Your task to perform on an android device: move an email to a new category in the gmail app Image 0: 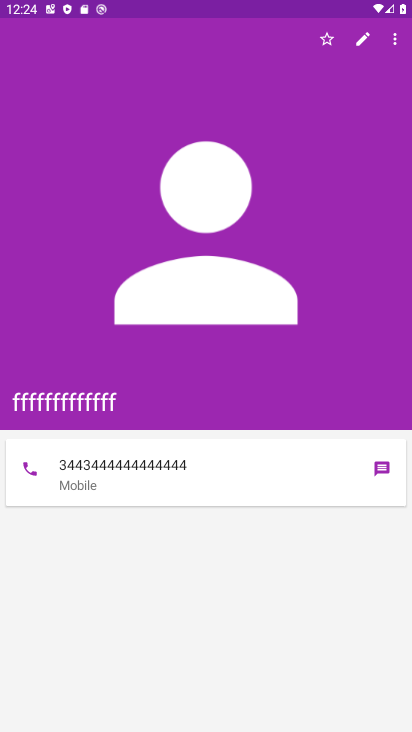
Step 0: press home button
Your task to perform on an android device: move an email to a new category in the gmail app Image 1: 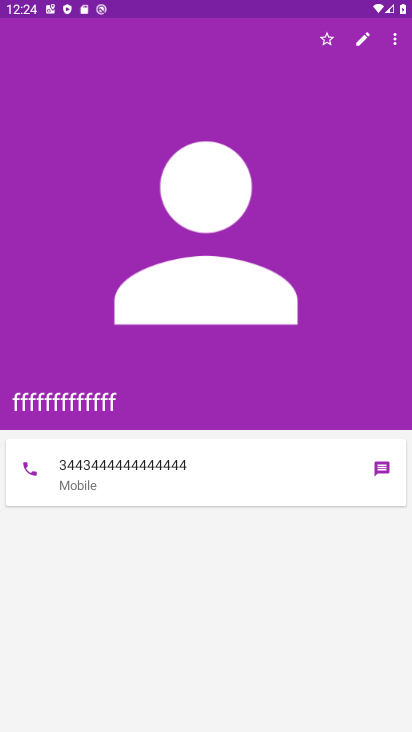
Step 1: press home button
Your task to perform on an android device: move an email to a new category in the gmail app Image 2: 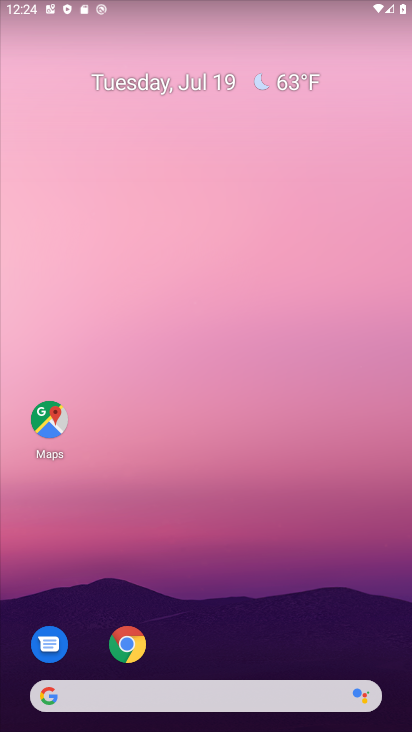
Step 2: drag from (189, 706) to (189, 362)
Your task to perform on an android device: move an email to a new category in the gmail app Image 3: 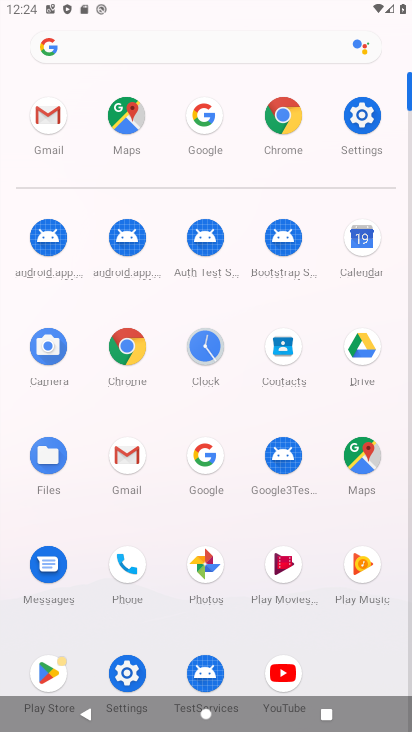
Step 3: click (133, 454)
Your task to perform on an android device: move an email to a new category in the gmail app Image 4: 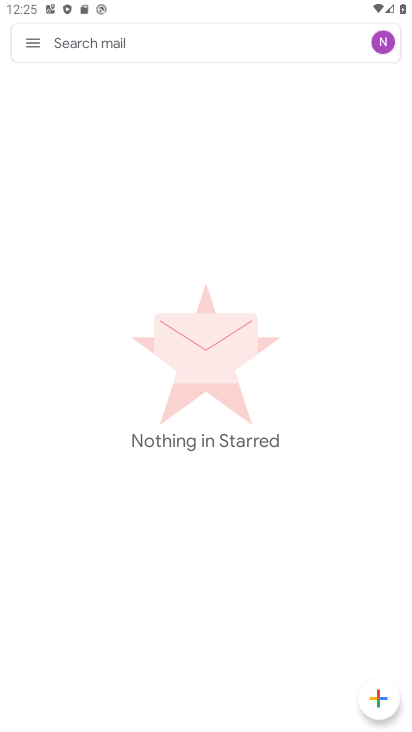
Step 4: click (28, 43)
Your task to perform on an android device: move an email to a new category in the gmail app Image 5: 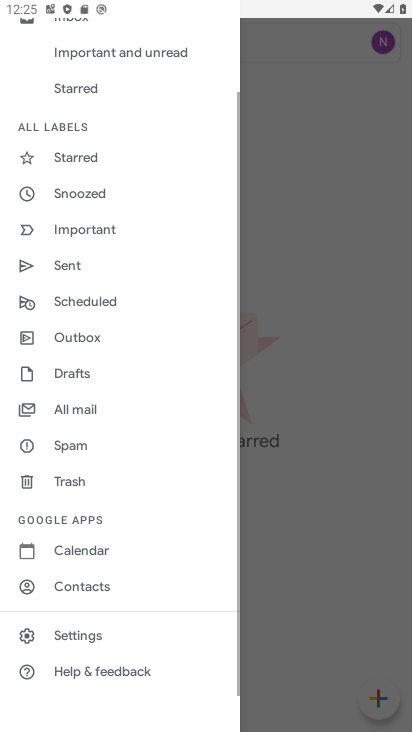
Step 5: drag from (104, 90) to (104, 363)
Your task to perform on an android device: move an email to a new category in the gmail app Image 6: 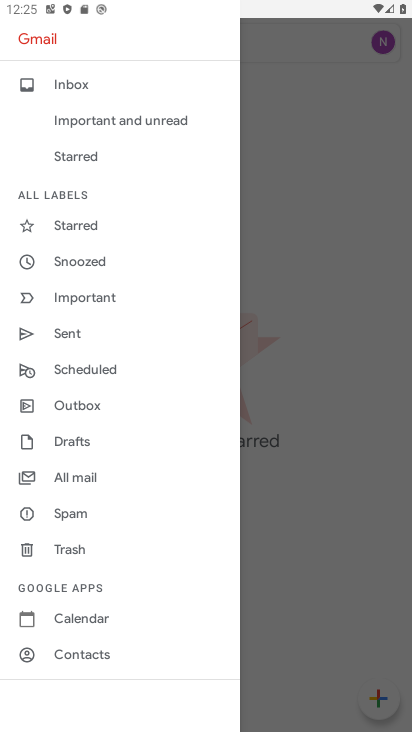
Step 6: click (74, 89)
Your task to perform on an android device: move an email to a new category in the gmail app Image 7: 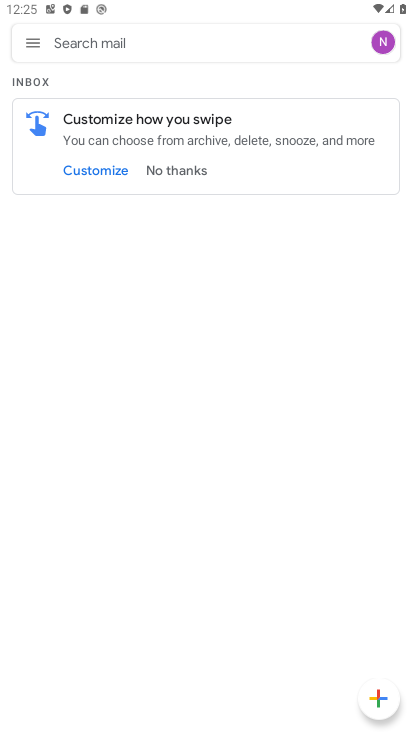
Step 7: task complete